Your task to perform on an android device: see sites visited before in the chrome app Image 0: 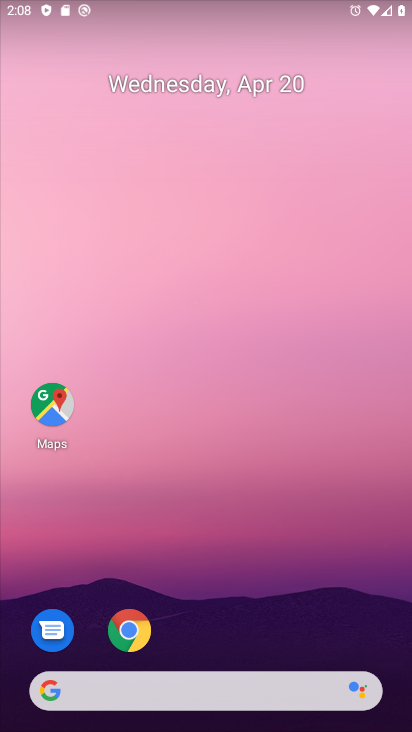
Step 0: click (131, 637)
Your task to perform on an android device: see sites visited before in the chrome app Image 1: 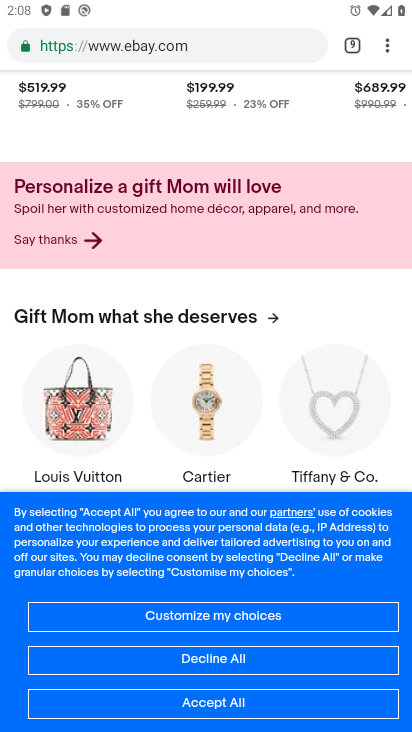
Step 1: click (385, 47)
Your task to perform on an android device: see sites visited before in the chrome app Image 2: 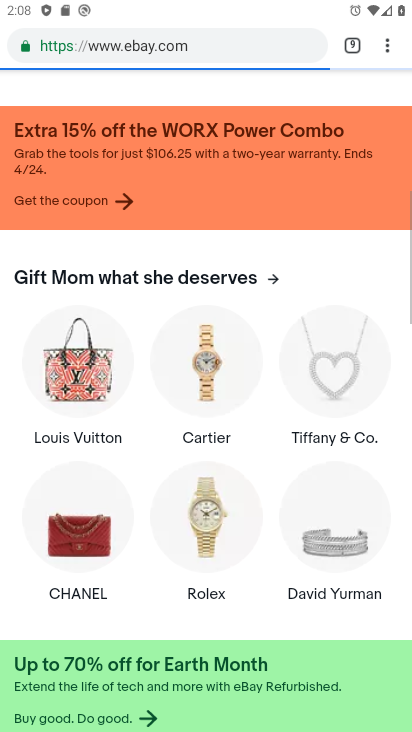
Step 2: task complete